Your task to perform on an android device: toggle pop-ups in chrome Image 0: 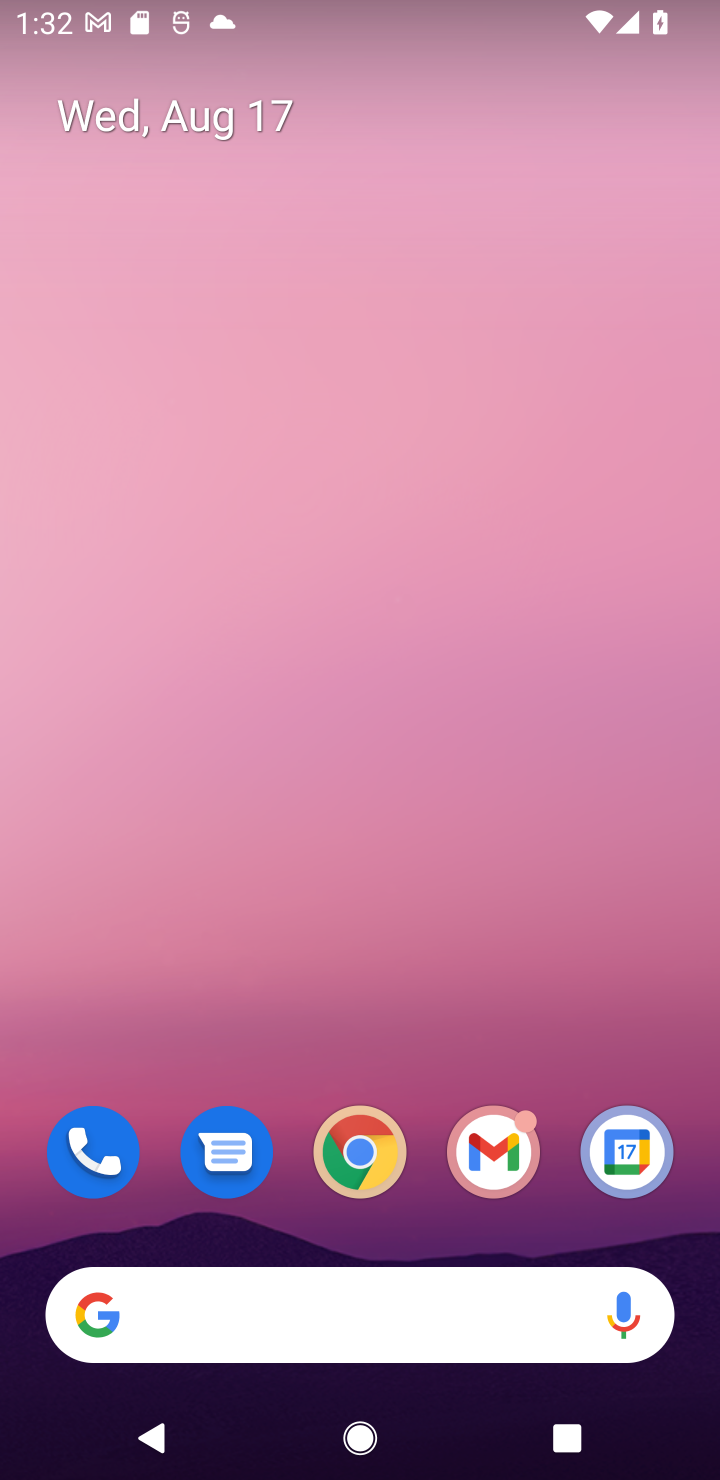
Step 0: drag from (558, 1199) to (261, 73)
Your task to perform on an android device: toggle pop-ups in chrome Image 1: 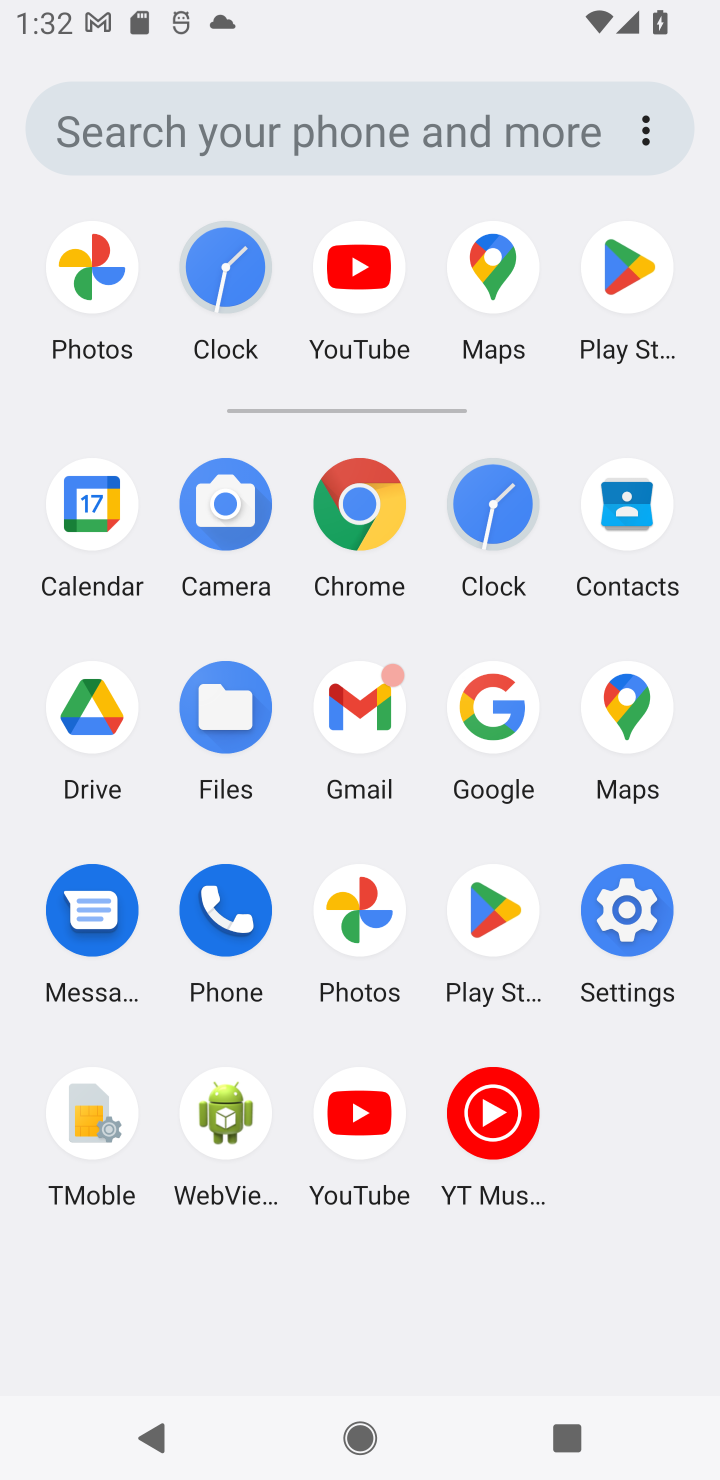
Step 1: click (386, 517)
Your task to perform on an android device: toggle pop-ups in chrome Image 2: 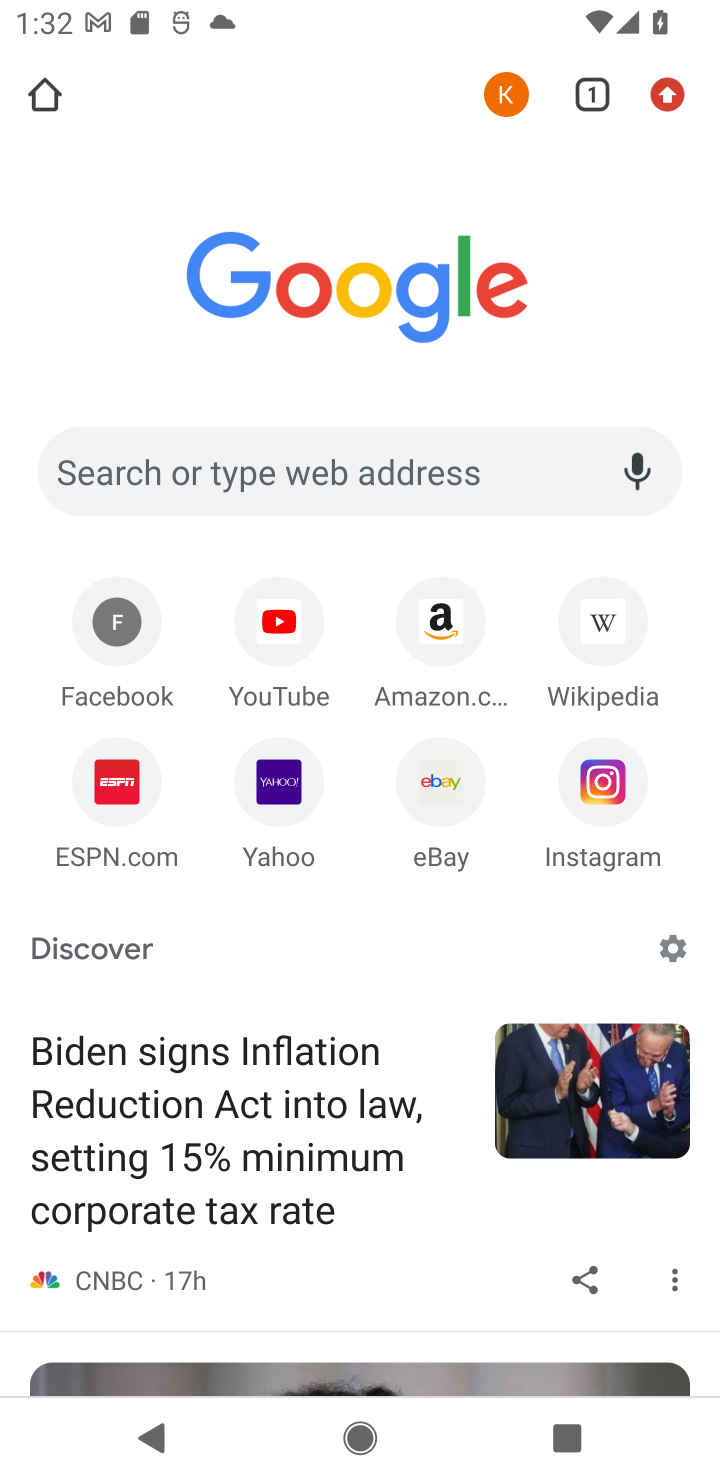
Step 2: click (665, 93)
Your task to perform on an android device: toggle pop-ups in chrome Image 3: 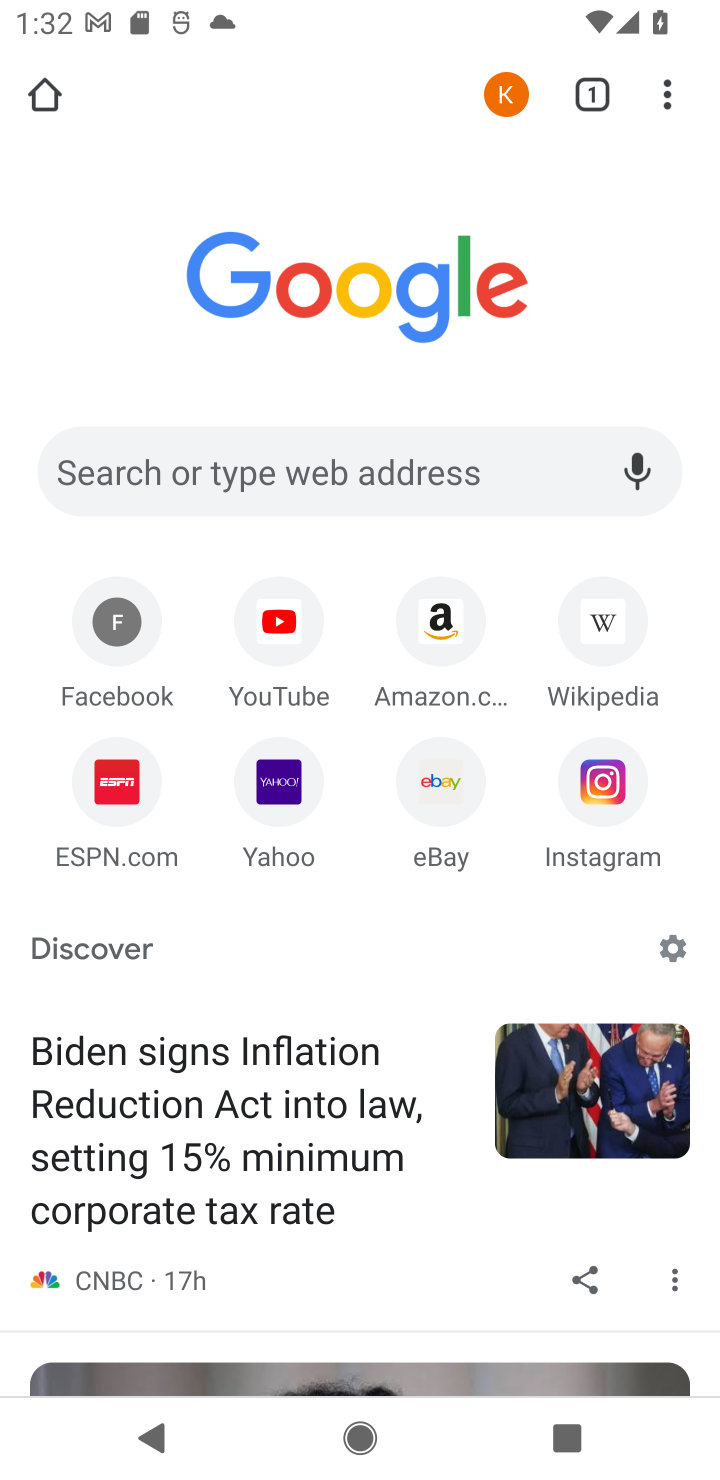
Step 3: click (665, 93)
Your task to perform on an android device: toggle pop-ups in chrome Image 4: 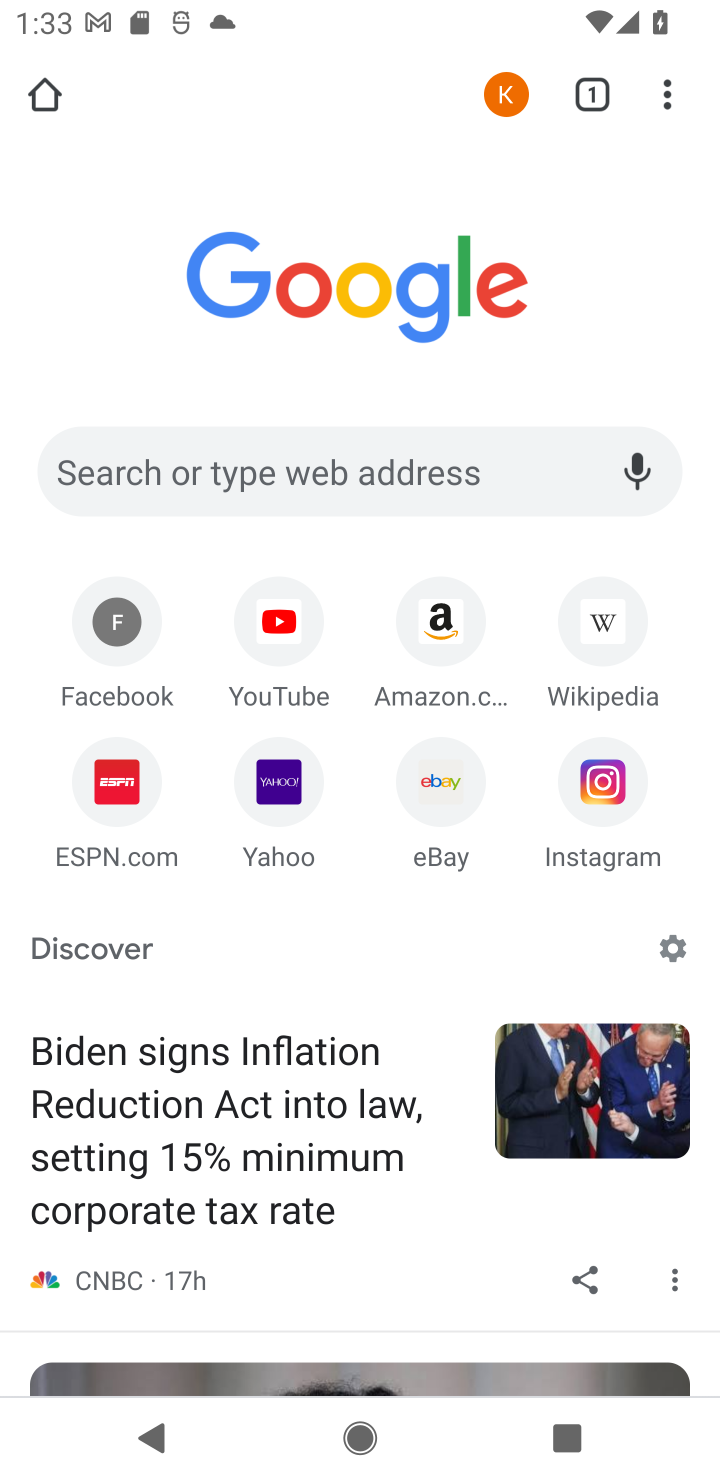
Step 4: click (665, 93)
Your task to perform on an android device: toggle pop-ups in chrome Image 5: 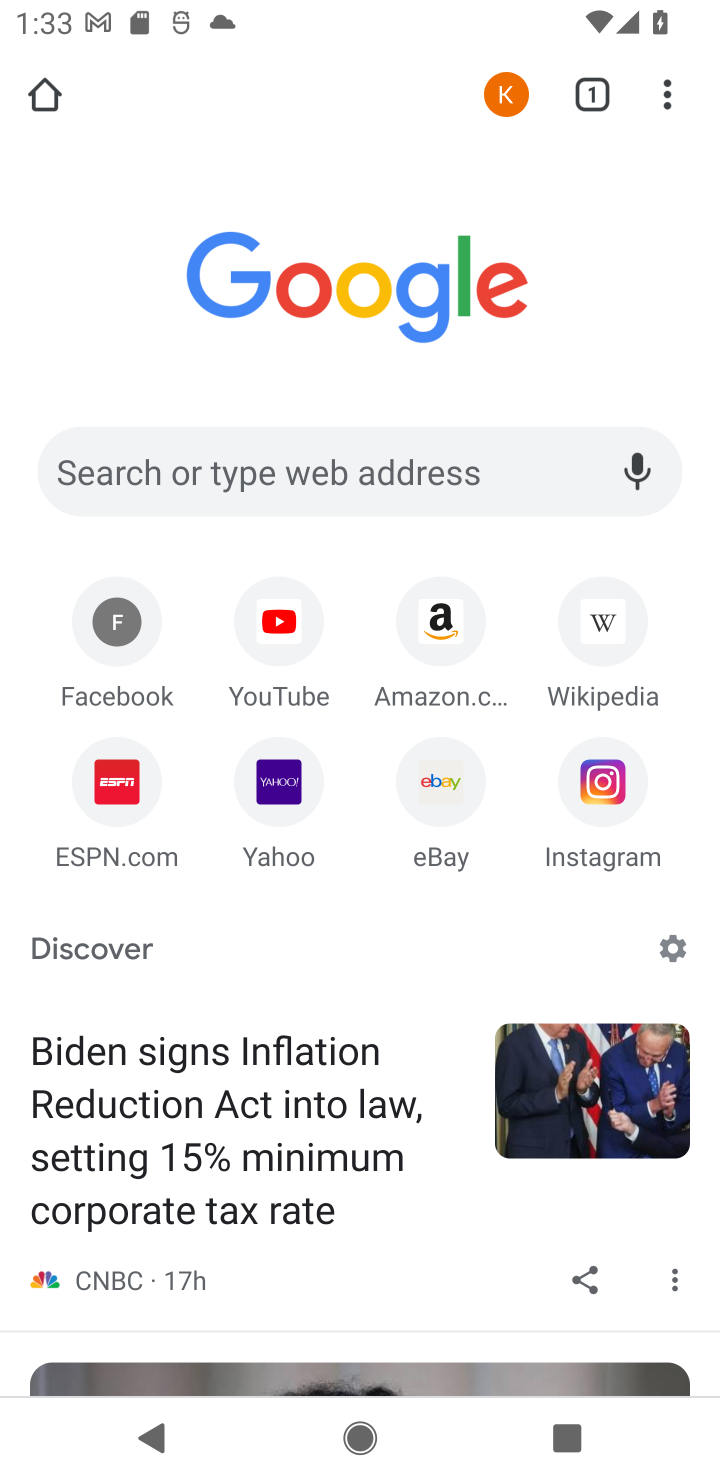
Step 5: click (679, 91)
Your task to perform on an android device: toggle pop-ups in chrome Image 6: 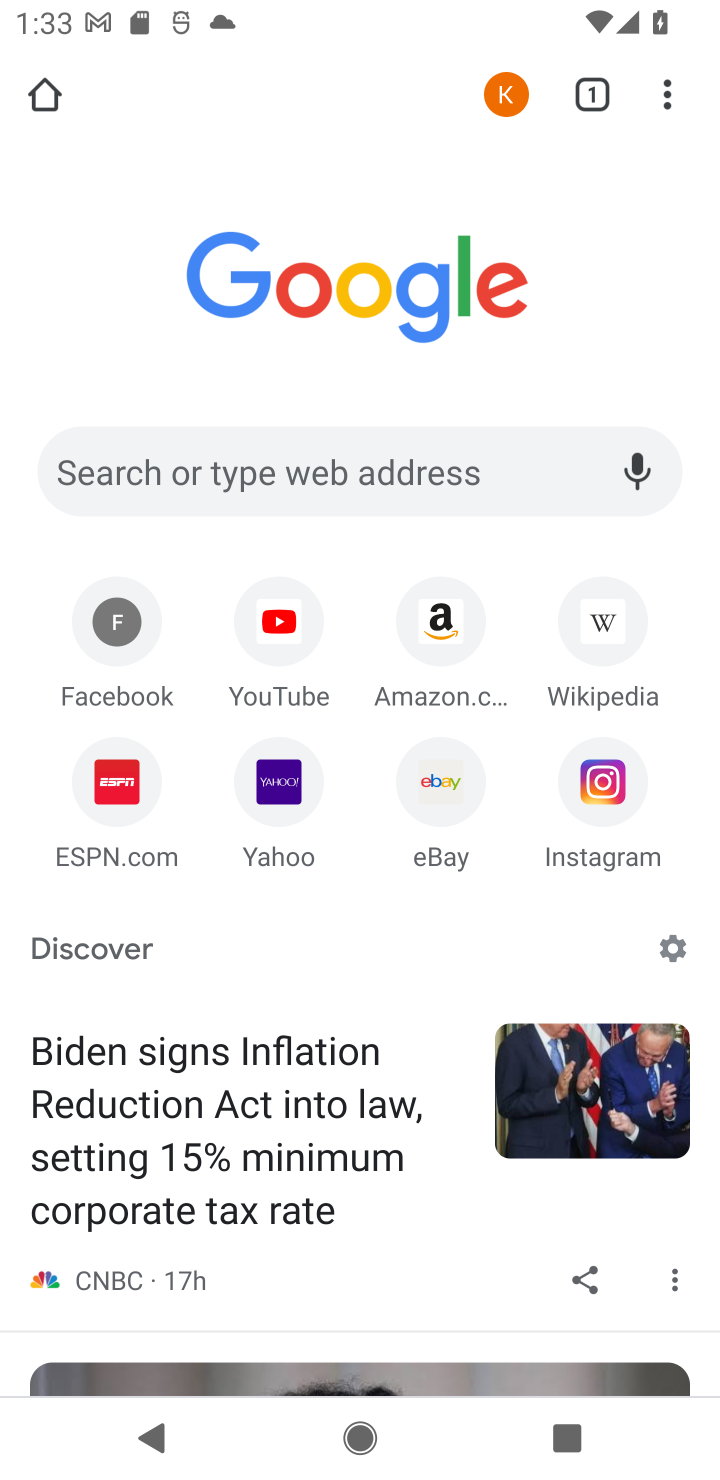
Step 6: click (665, 87)
Your task to perform on an android device: toggle pop-ups in chrome Image 7: 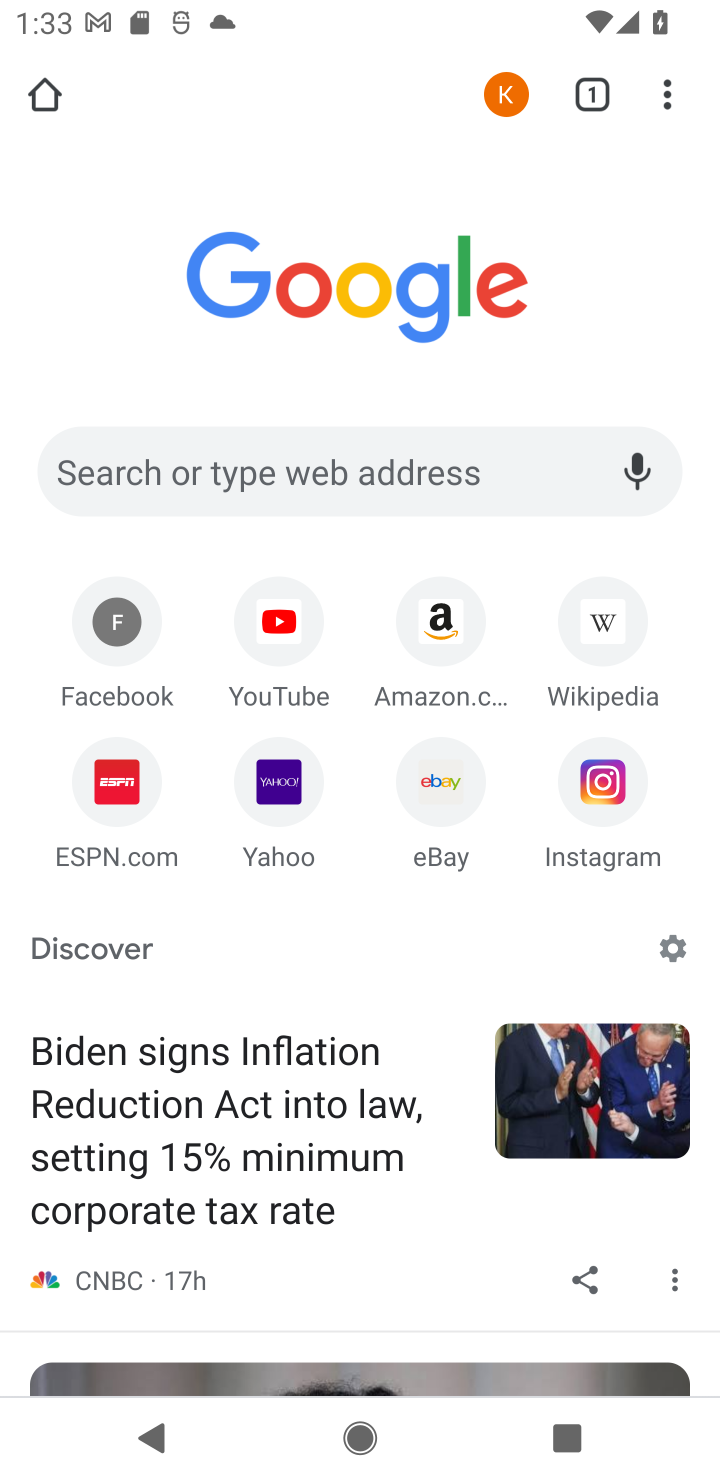
Step 7: click (665, 86)
Your task to perform on an android device: toggle pop-ups in chrome Image 8: 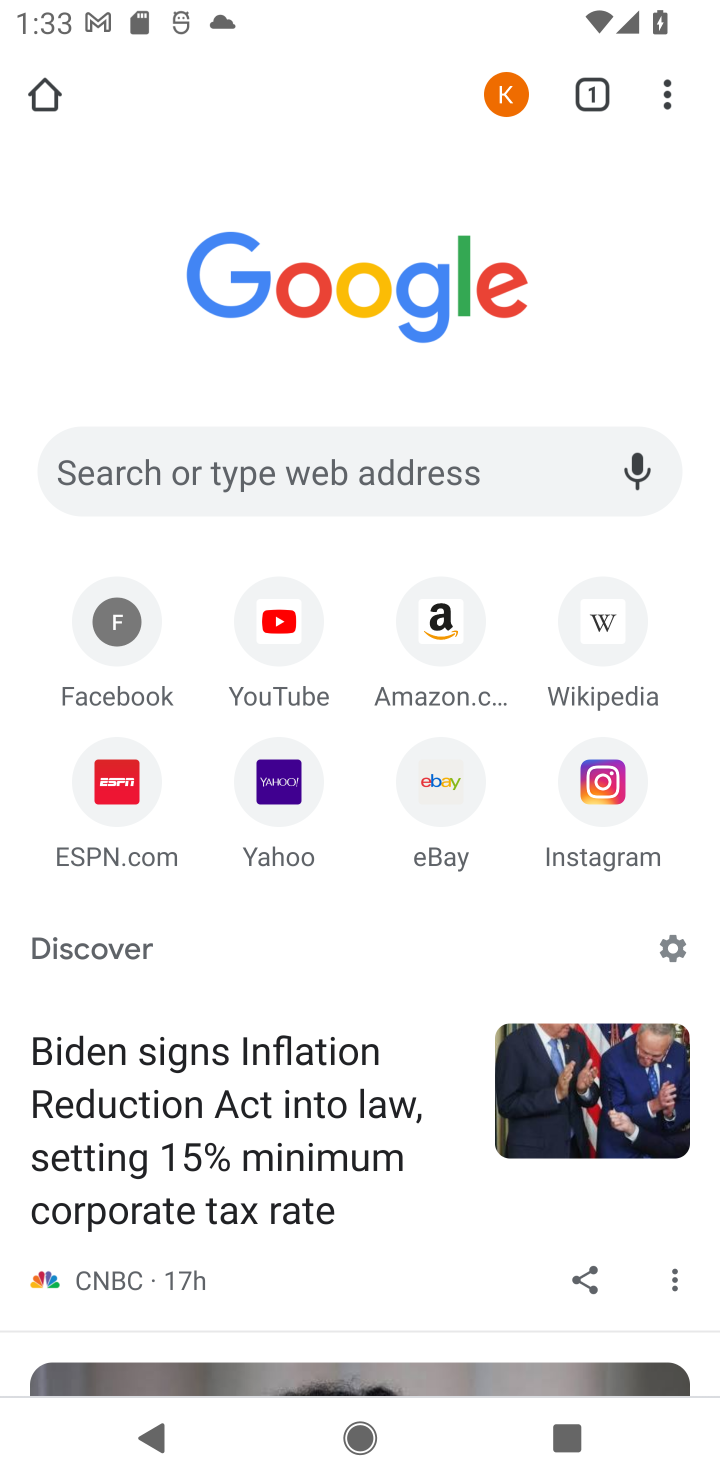
Step 8: click (664, 82)
Your task to perform on an android device: toggle pop-ups in chrome Image 9: 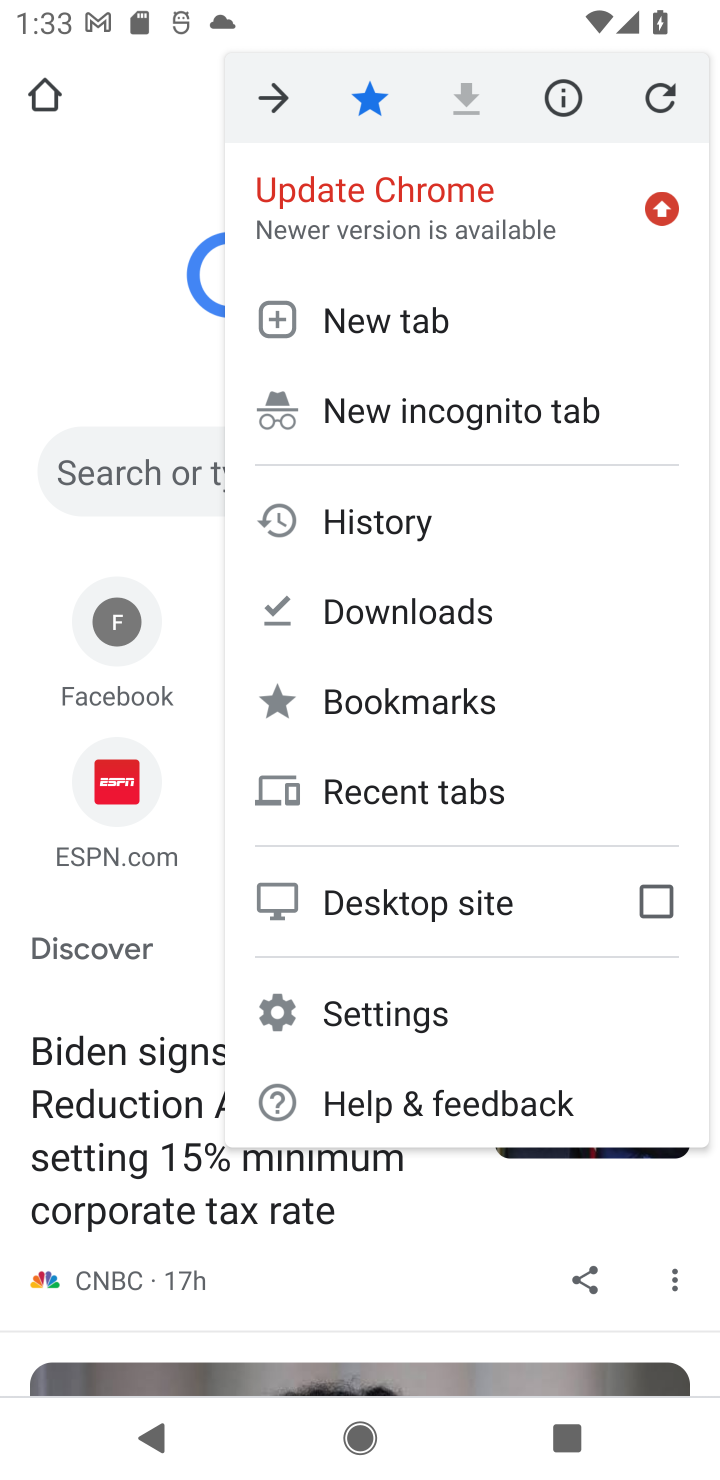
Step 9: click (417, 1027)
Your task to perform on an android device: toggle pop-ups in chrome Image 10: 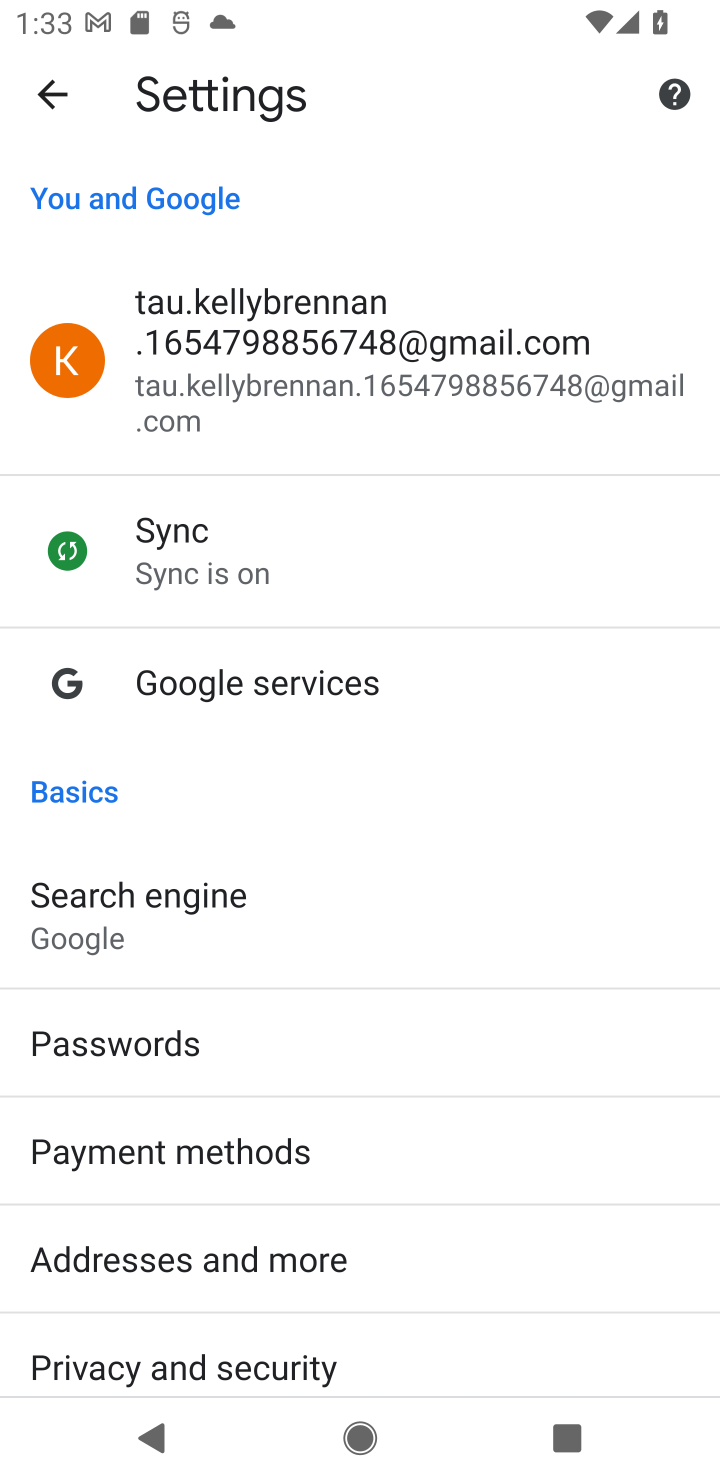
Step 10: drag from (311, 1336) to (112, 210)
Your task to perform on an android device: toggle pop-ups in chrome Image 11: 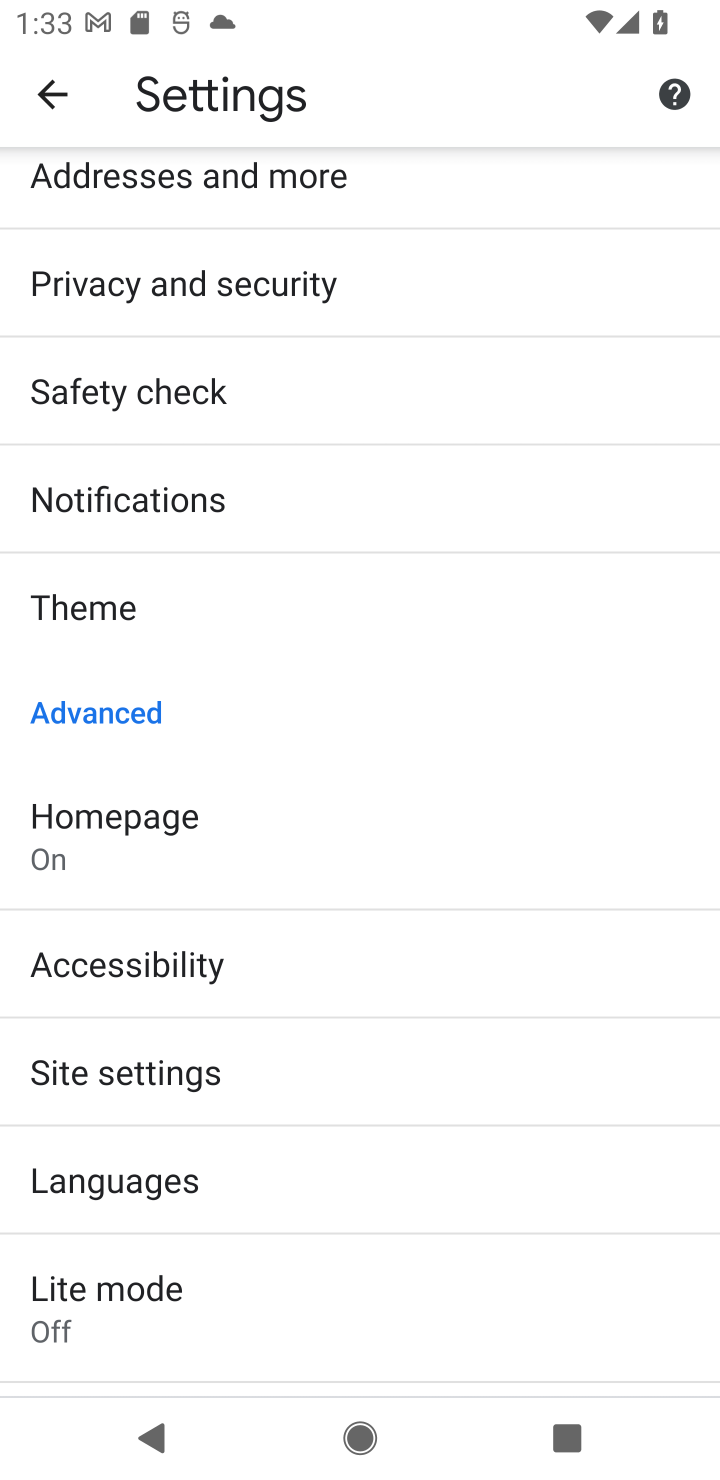
Step 11: click (143, 1084)
Your task to perform on an android device: toggle pop-ups in chrome Image 12: 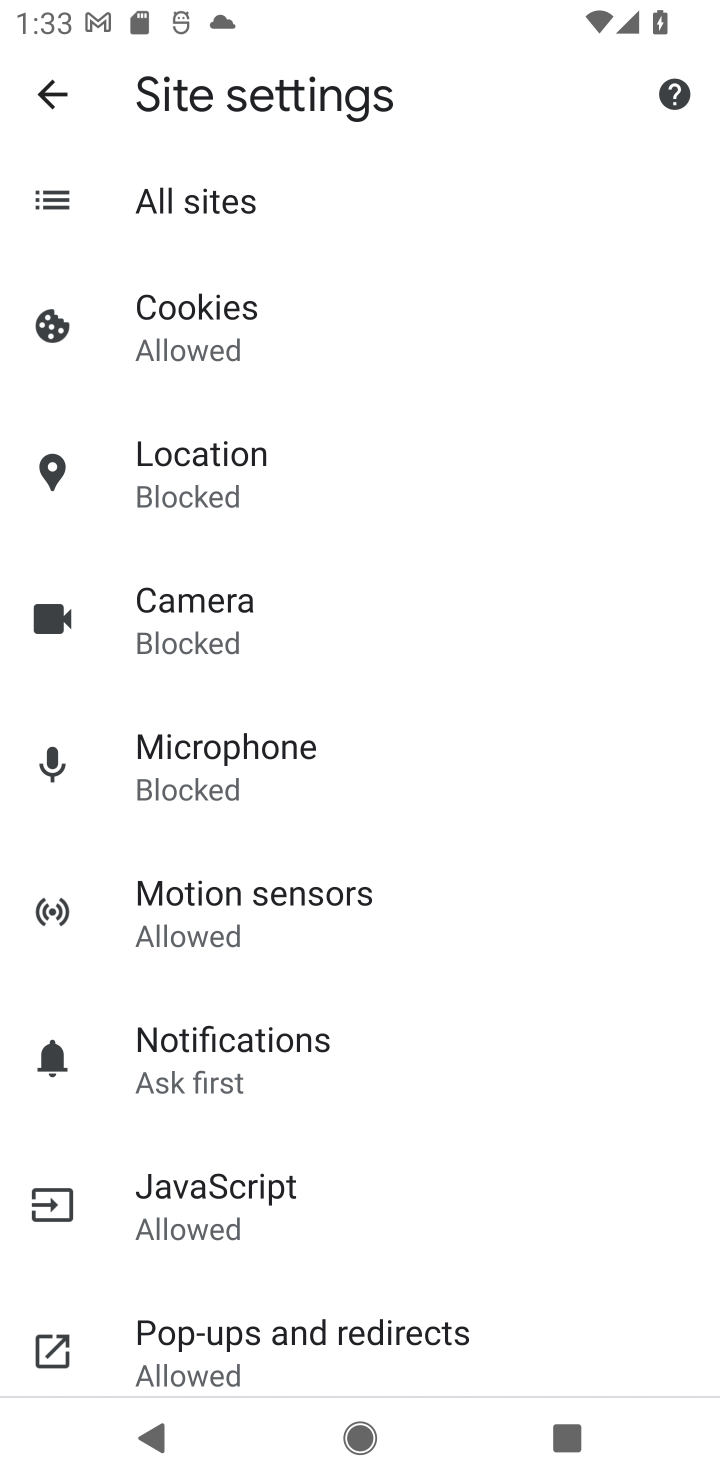
Step 12: click (344, 1331)
Your task to perform on an android device: toggle pop-ups in chrome Image 13: 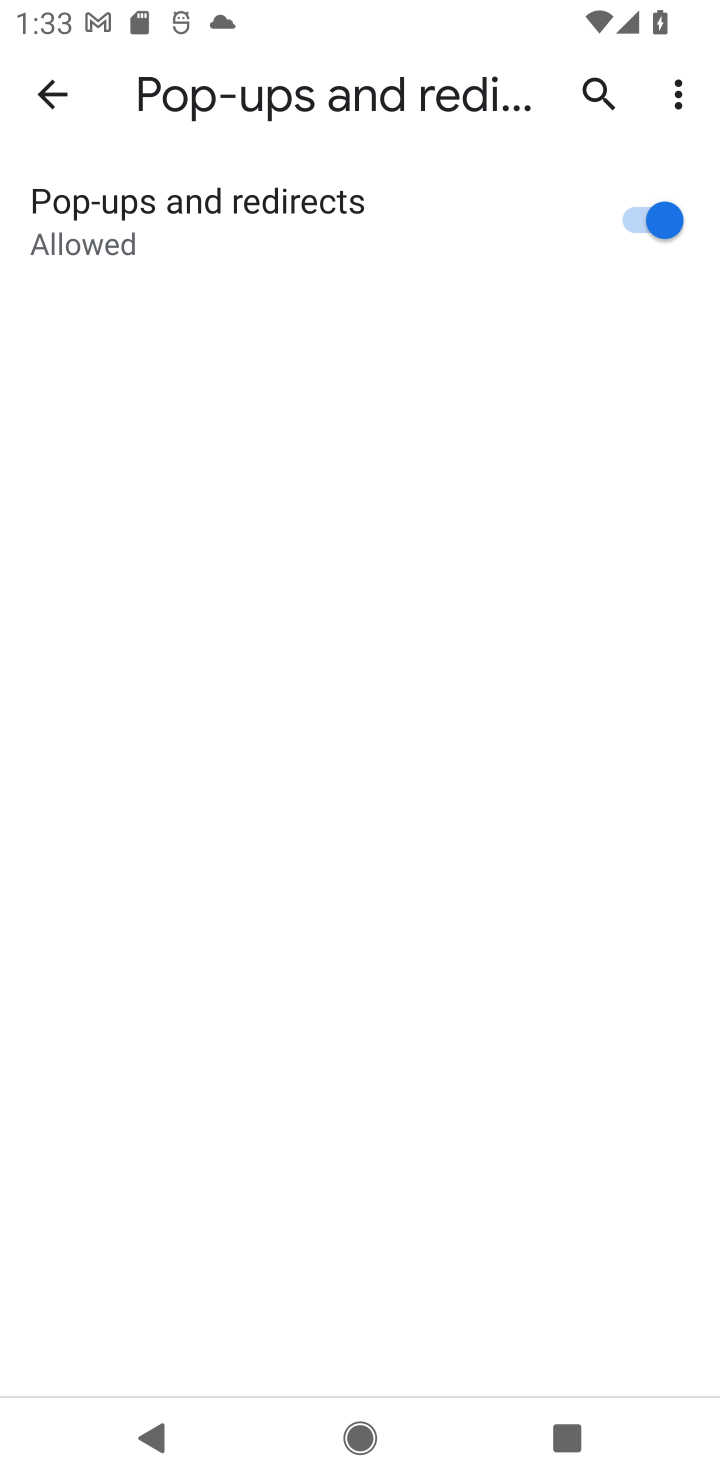
Step 13: click (622, 214)
Your task to perform on an android device: toggle pop-ups in chrome Image 14: 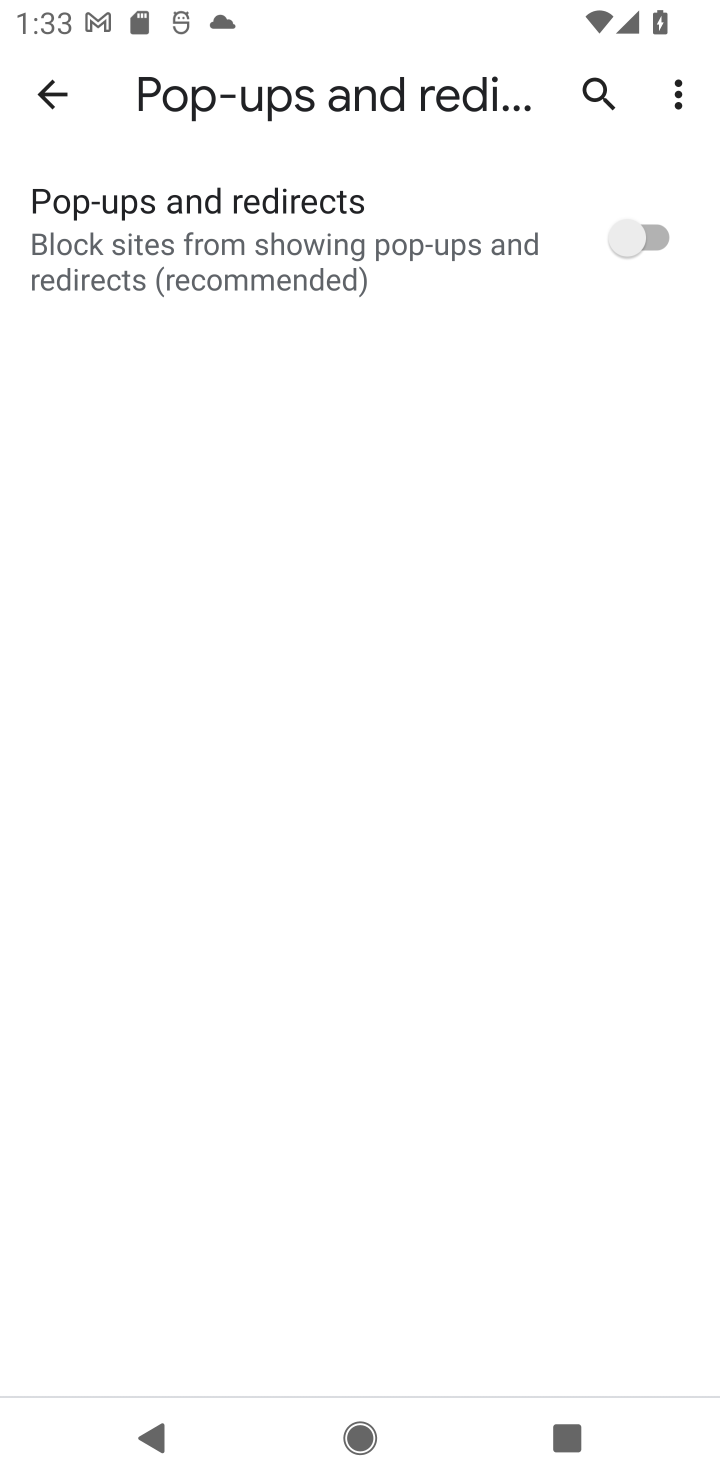
Step 14: task complete